Your task to perform on an android device: Open the contacts Image 0: 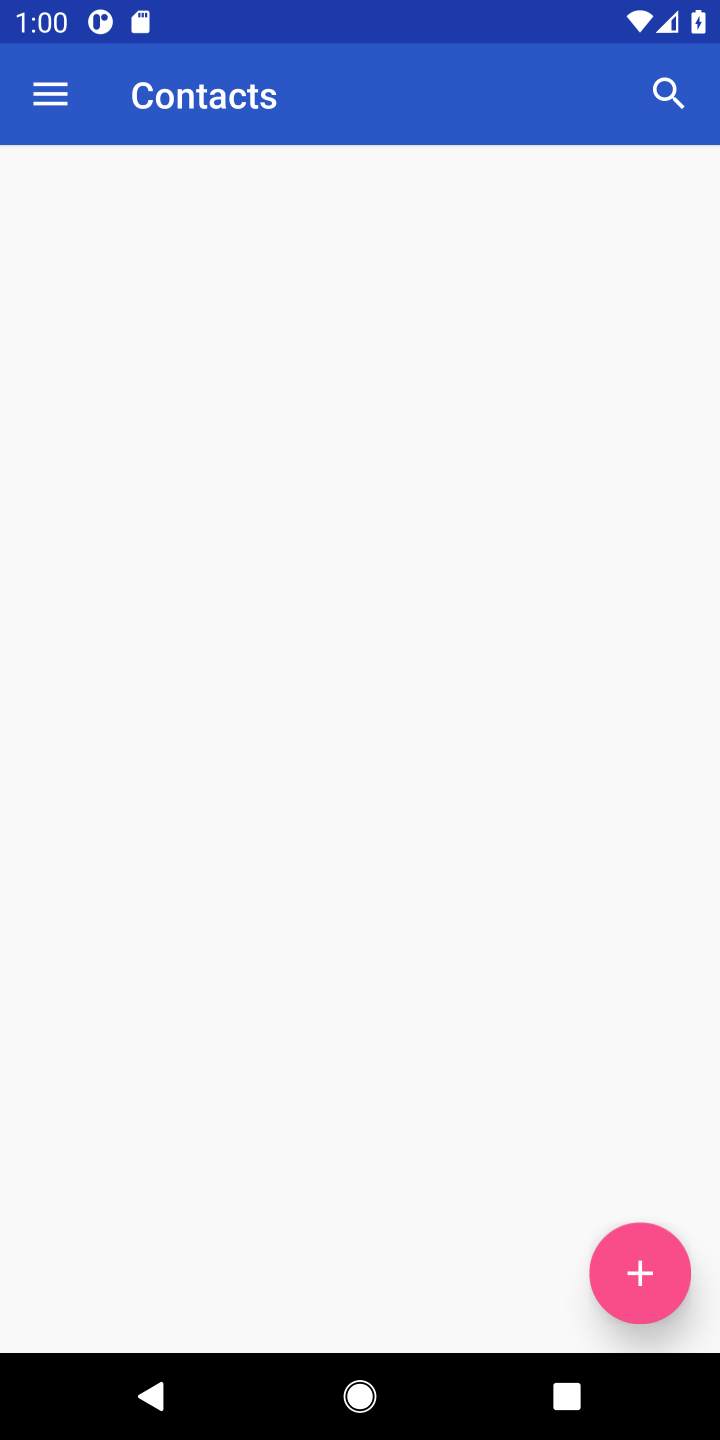
Step 0: press home button
Your task to perform on an android device: Open the contacts Image 1: 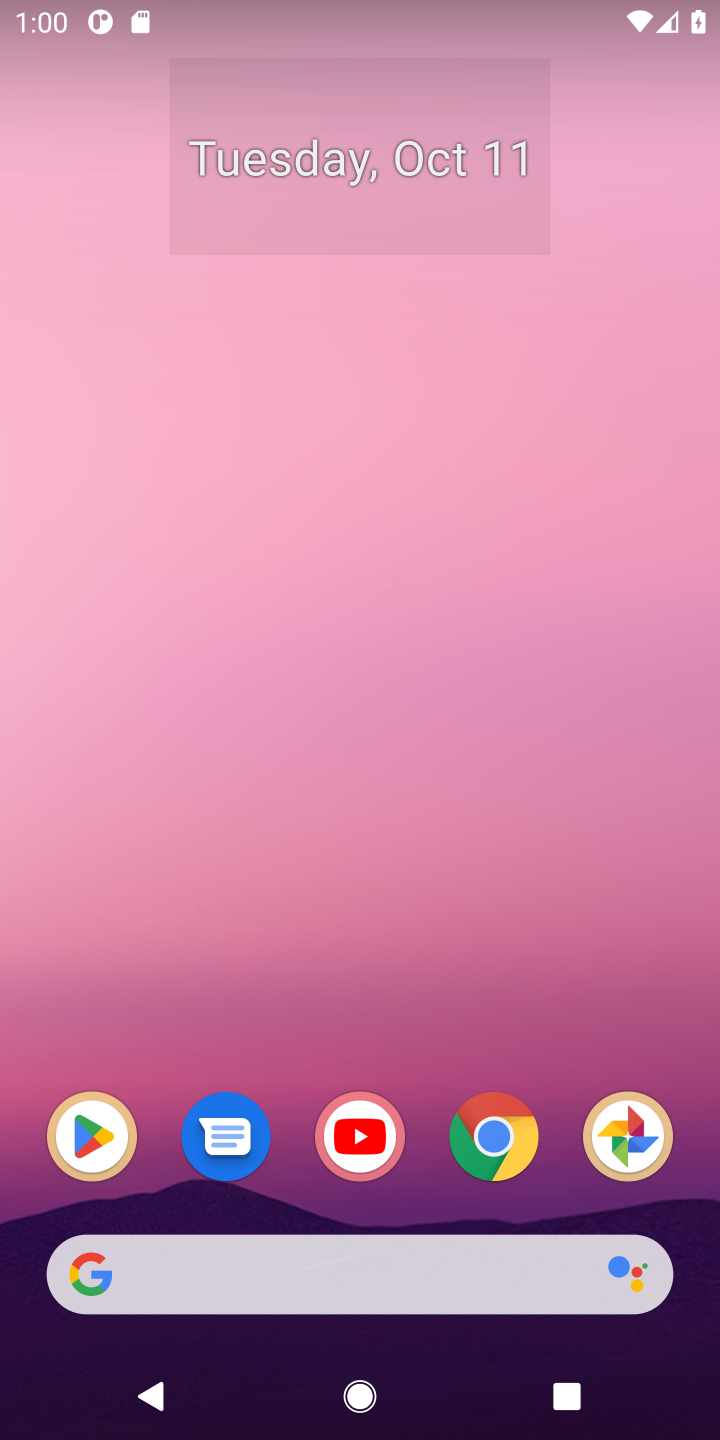
Step 1: drag from (660, 1007) to (619, 109)
Your task to perform on an android device: Open the contacts Image 2: 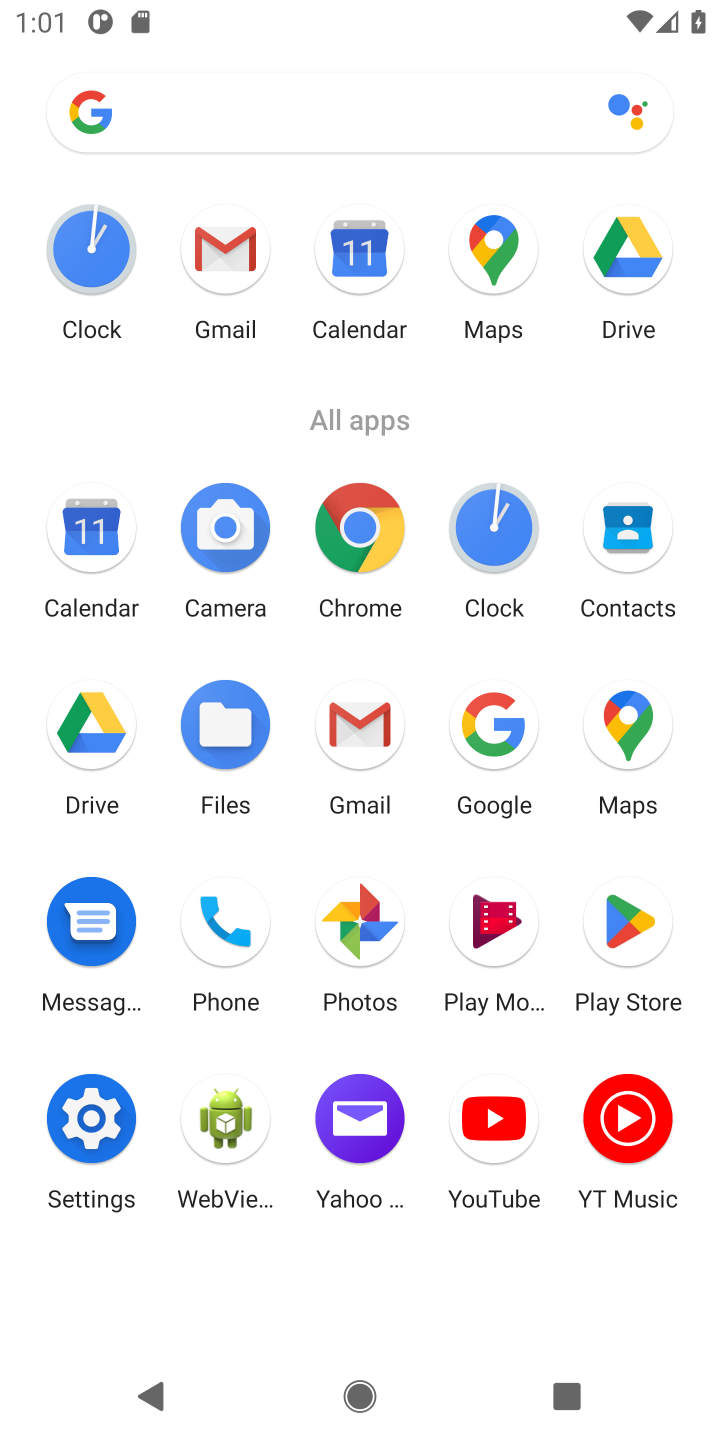
Step 2: click (639, 550)
Your task to perform on an android device: Open the contacts Image 3: 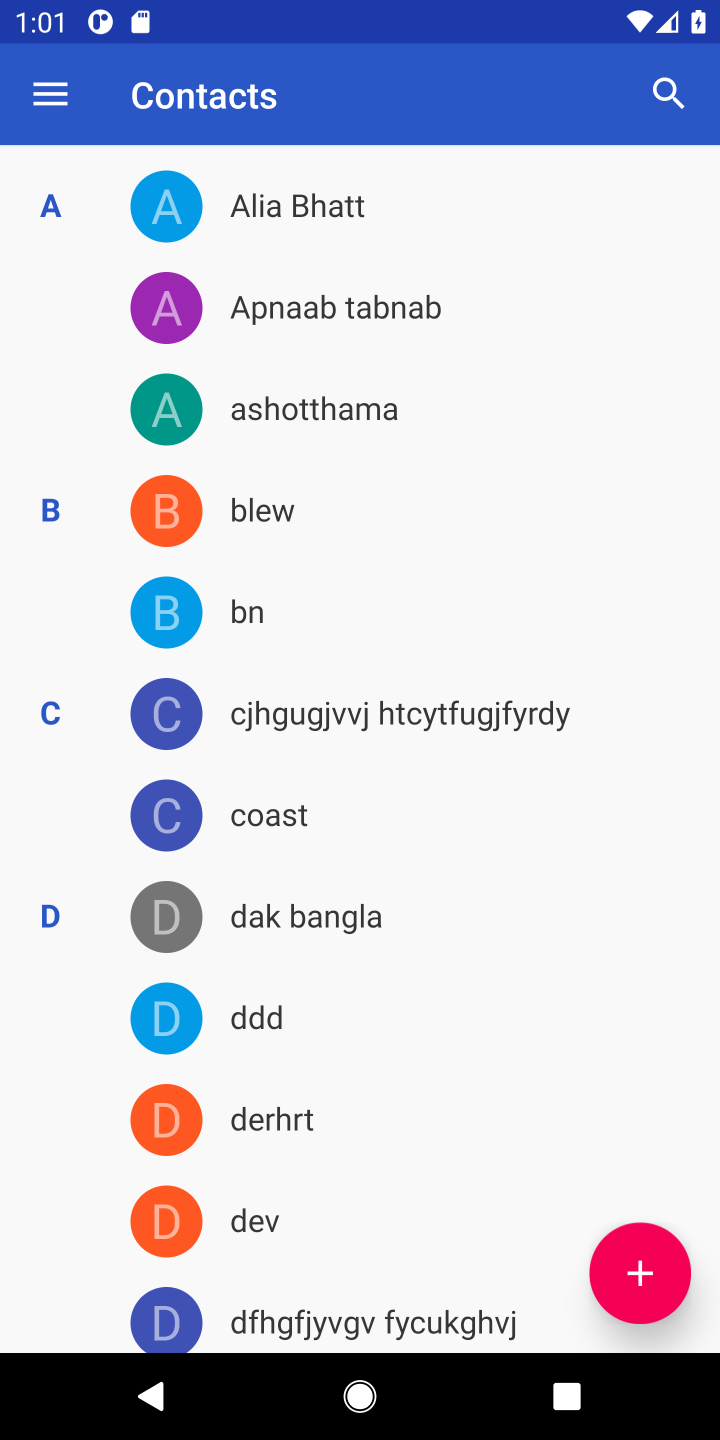
Step 3: task complete